Your task to perform on an android device: Open settings Image 0: 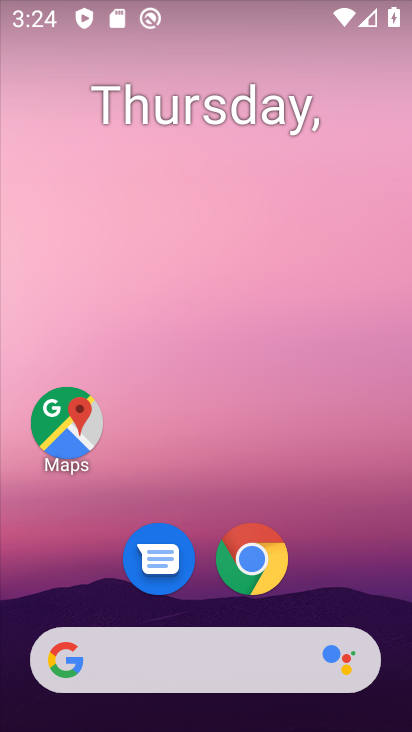
Step 0: drag from (346, 541) to (350, 160)
Your task to perform on an android device: Open settings Image 1: 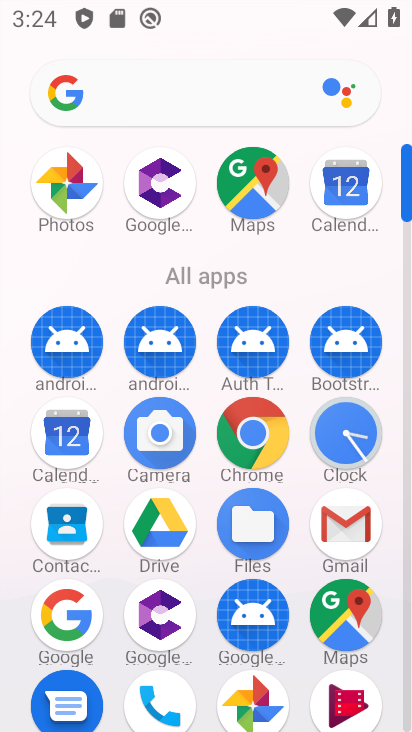
Step 1: drag from (205, 691) to (227, 275)
Your task to perform on an android device: Open settings Image 2: 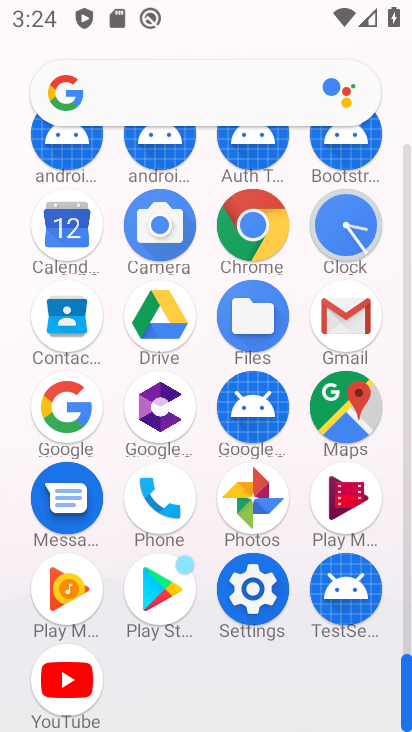
Step 2: click (252, 600)
Your task to perform on an android device: Open settings Image 3: 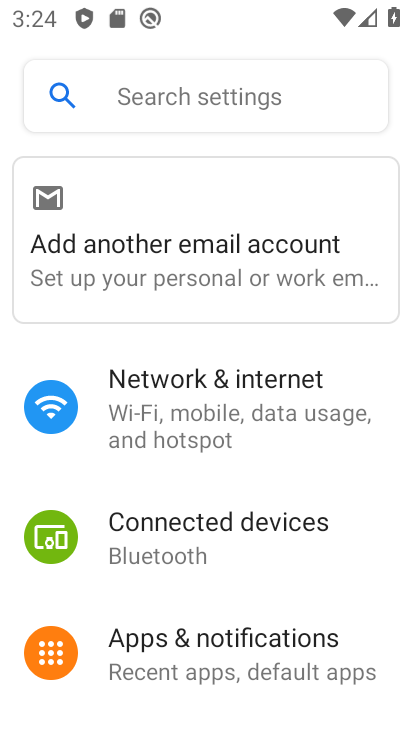
Step 3: task complete